Your task to perform on an android device: turn off location history Image 0: 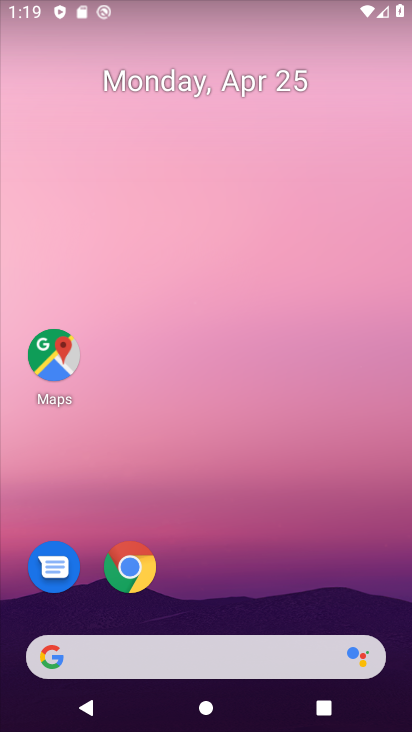
Step 0: drag from (315, 608) to (121, 659)
Your task to perform on an android device: turn off location history Image 1: 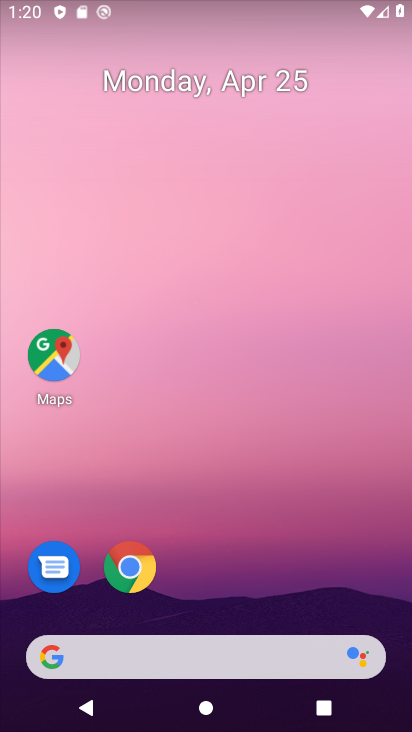
Step 1: drag from (256, 598) to (199, 106)
Your task to perform on an android device: turn off location history Image 2: 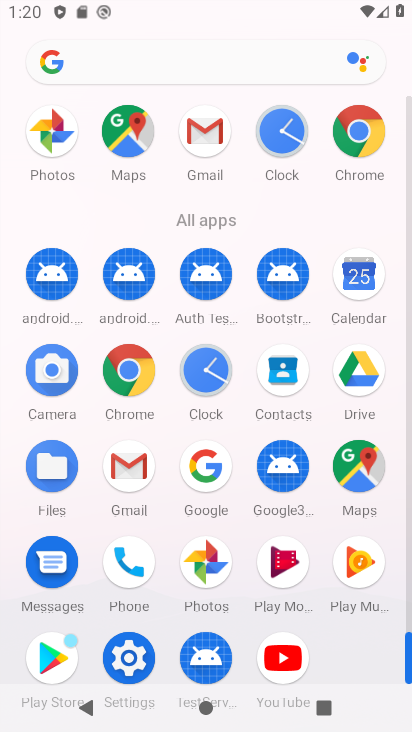
Step 2: click (116, 675)
Your task to perform on an android device: turn off location history Image 3: 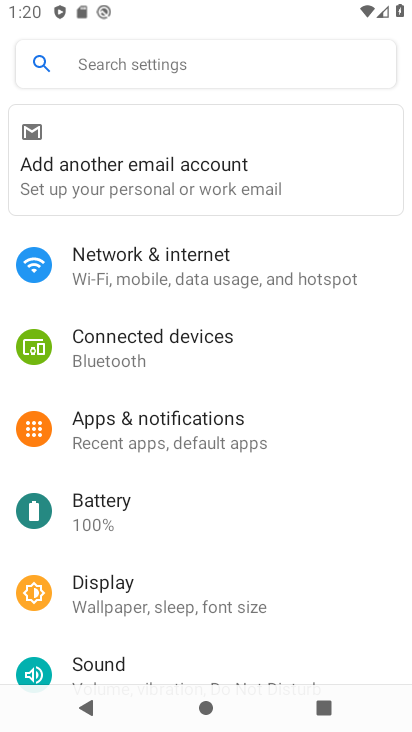
Step 3: drag from (265, 512) to (164, 0)
Your task to perform on an android device: turn off location history Image 4: 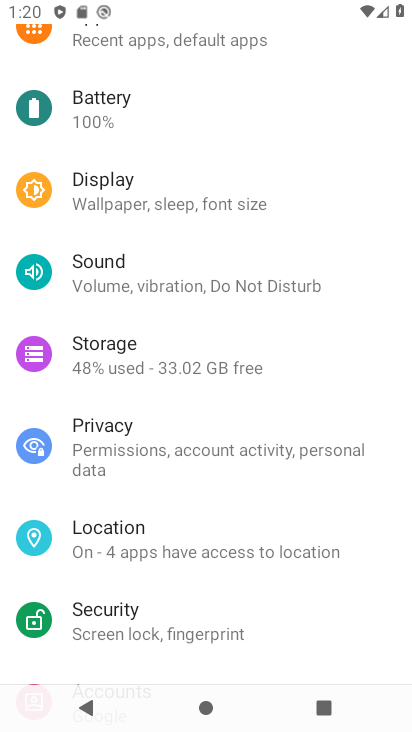
Step 4: click (154, 546)
Your task to perform on an android device: turn off location history Image 5: 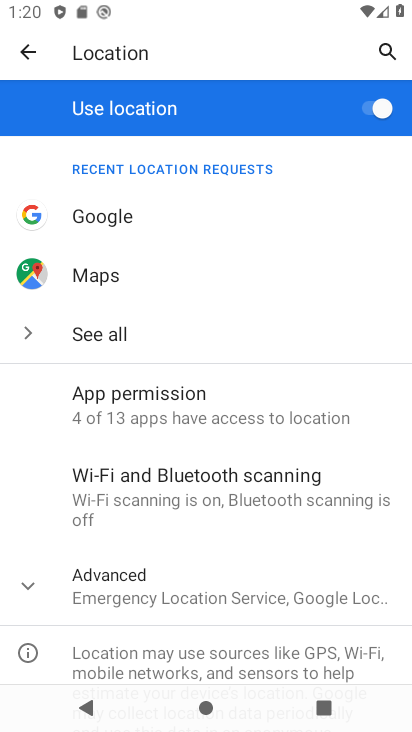
Step 5: drag from (207, 475) to (176, 265)
Your task to perform on an android device: turn off location history Image 6: 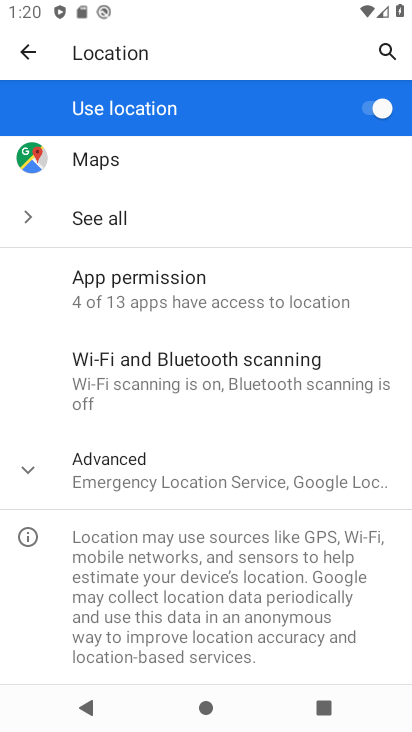
Step 6: click (131, 466)
Your task to perform on an android device: turn off location history Image 7: 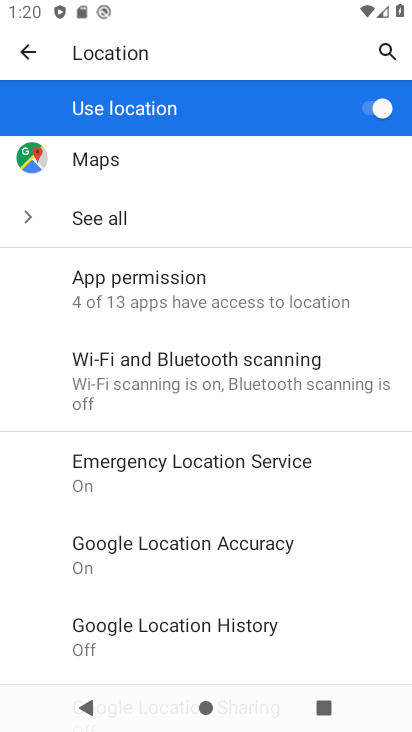
Step 7: drag from (188, 627) to (120, 200)
Your task to perform on an android device: turn off location history Image 8: 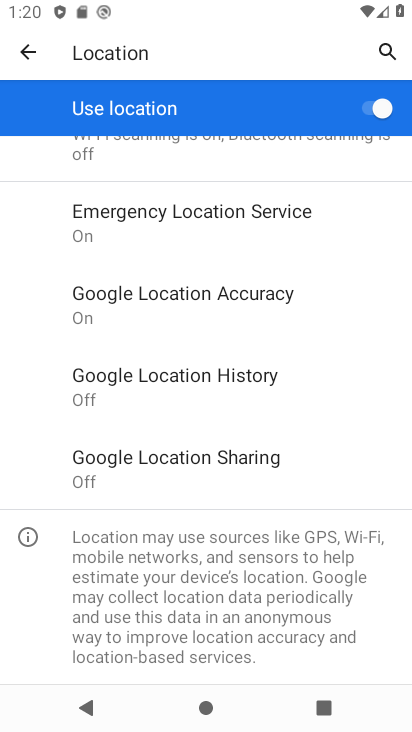
Step 8: click (162, 374)
Your task to perform on an android device: turn off location history Image 9: 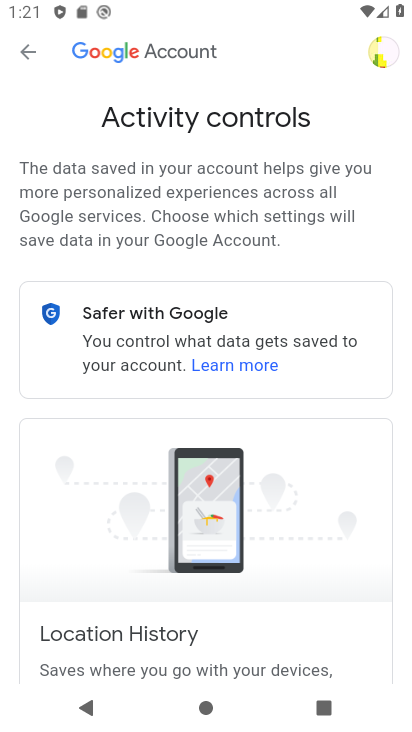
Step 9: drag from (280, 467) to (233, 56)
Your task to perform on an android device: turn off location history Image 10: 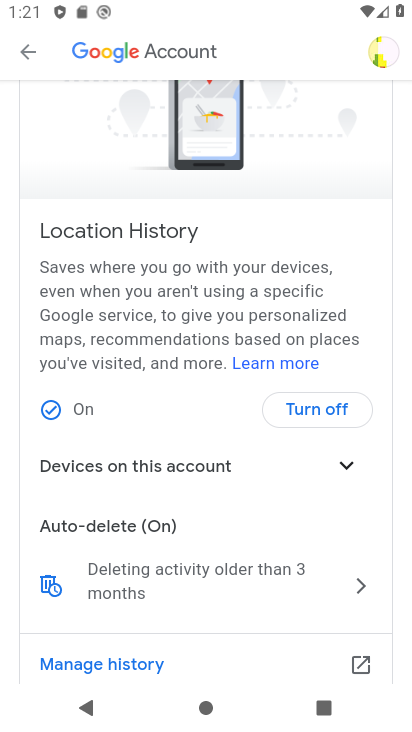
Step 10: click (310, 398)
Your task to perform on an android device: turn off location history Image 11: 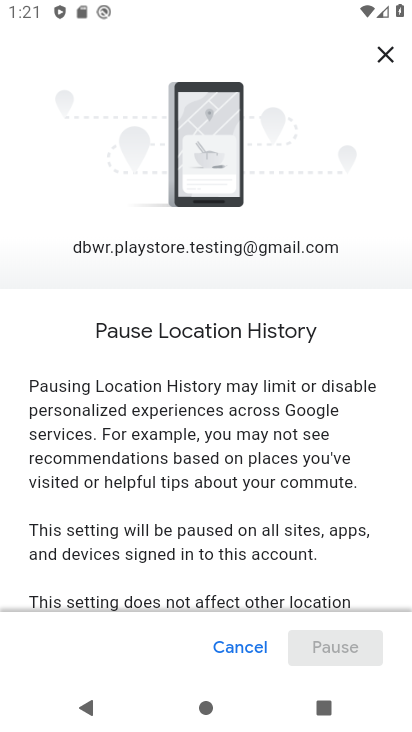
Step 11: drag from (295, 481) to (205, 75)
Your task to perform on an android device: turn off location history Image 12: 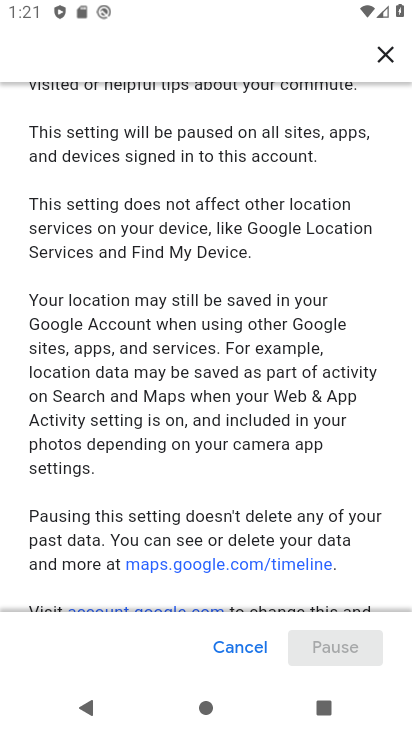
Step 12: drag from (287, 566) to (186, 41)
Your task to perform on an android device: turn off location history Image 13: 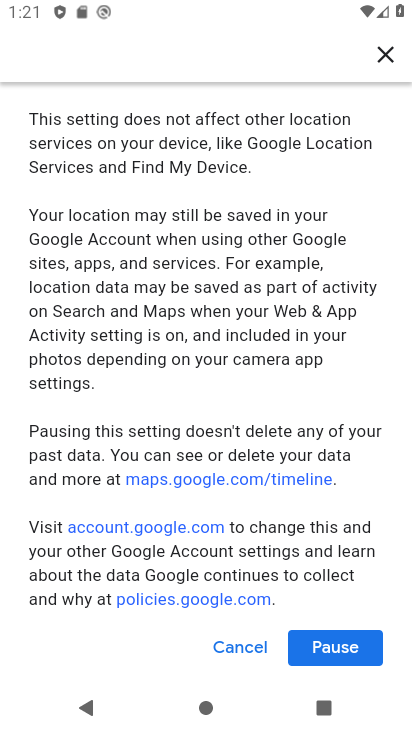
Step 13: click (313, 641)
Your task to perform on an android device: turn off location history Image 14: 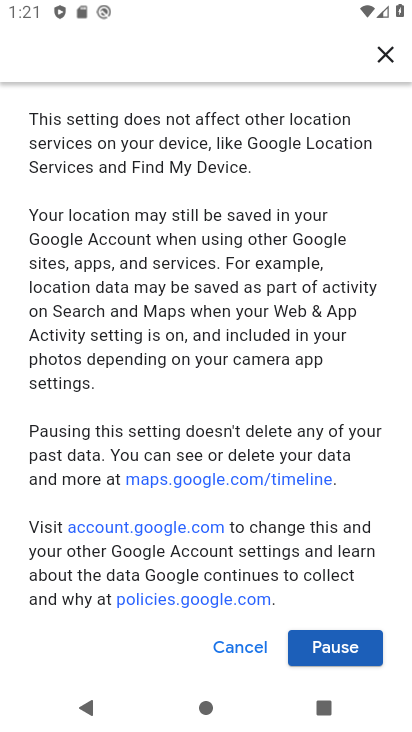
Step 14: click (333, 653)
Your task to perform on an android device: turn off location history Image 15: 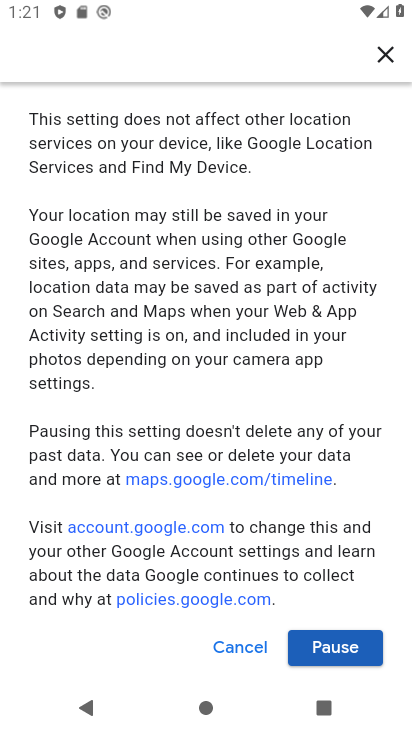
Step 15: click (332, 653)
Your task to perform on an android device: turn off location history Image 16: 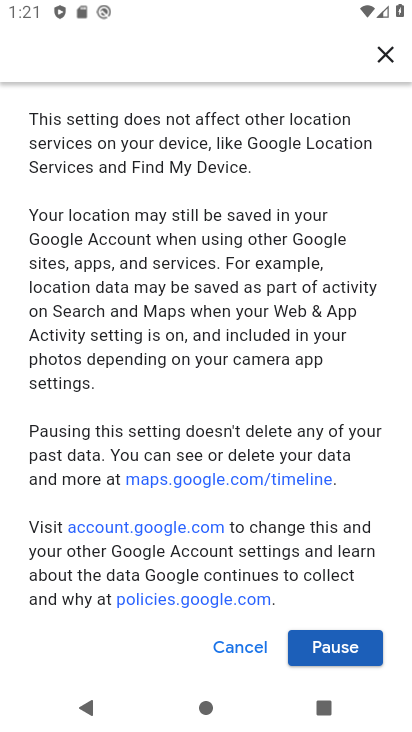
Step 16: drag from (297, 523) to (252, 285)
Your task to perform on an android device: turn off location history Image 17: 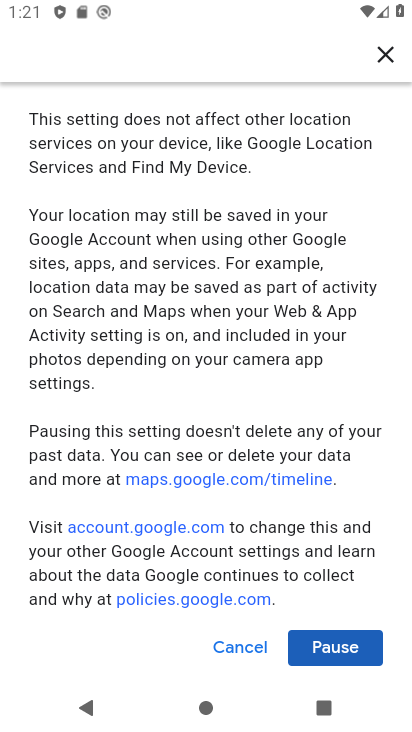
Step 17: click (334, 644)
Your task to perform on an android device: turn off location history Image 18: 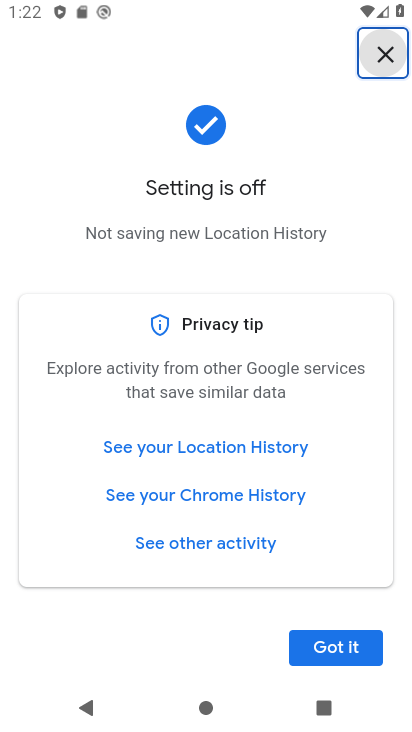
Step 18: click (334, 644)
Your task to perform on an android device: turn off location history Image 19: 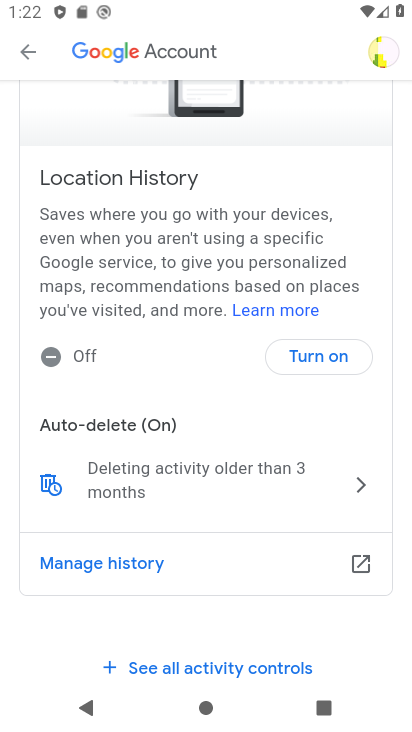
Step 19: task complete